Your task to perform on an android device: What's the weather going to be tomorrow? Image 0: 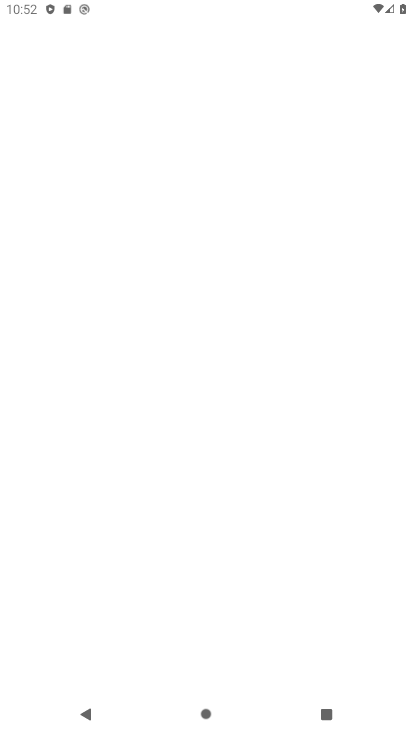
Step 0: press home button
Your task to perform on an android device: What's the weather going to be tomorrow? Image 1: 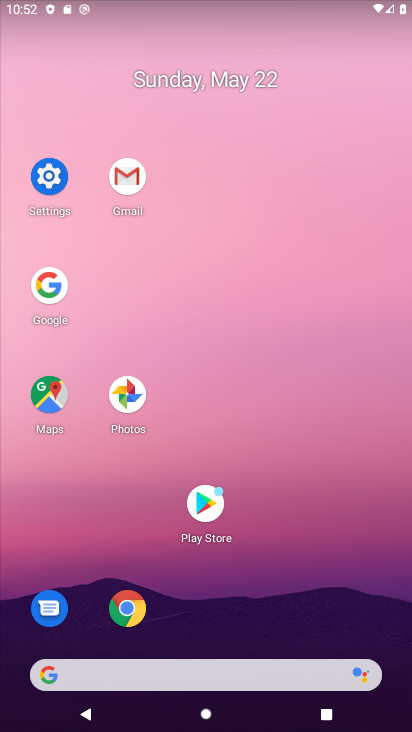
Step 1: click (48, 288)
Your task to perform on an android device: What's the weather going to be tomorrow? Image 2: 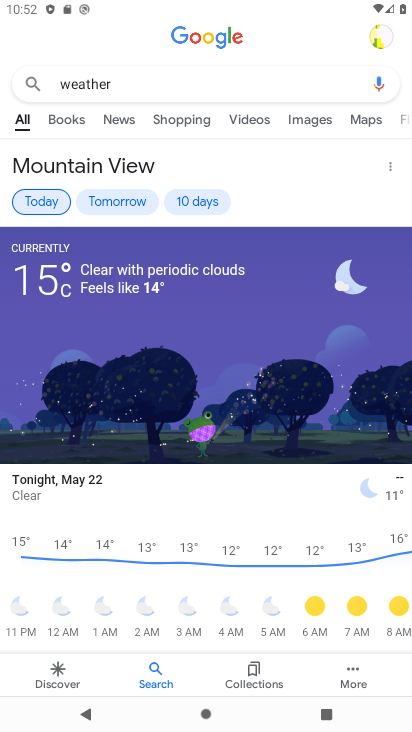
Step 2: click (118, 205)
Your task to perform on an android device: What's the weather going to be tomorrow? Image 3: 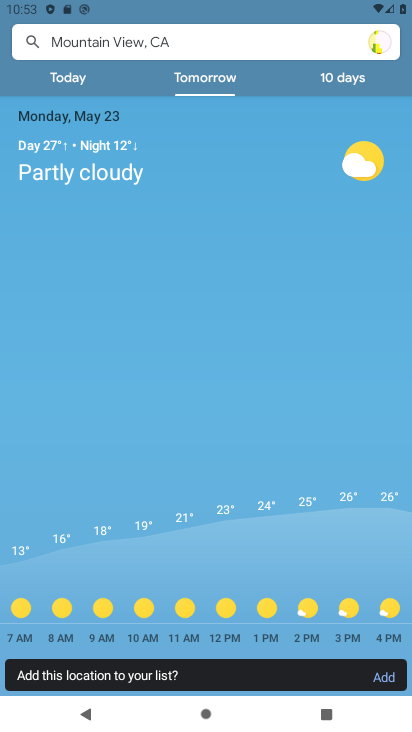
Step 3: task complete